Your task to perform on an android device: turn on showing notifications on the lock screen Image 0: 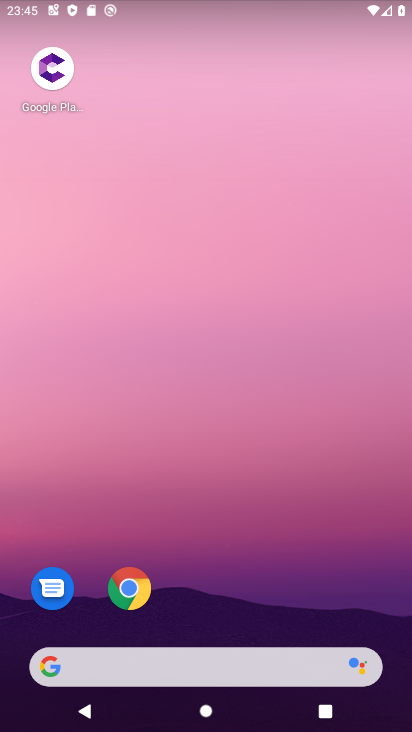
Step 0: drag from (180, 507) to (69, 17)
Your task to perform on an android device: turn on showing notifications on the lock screen Image 1: 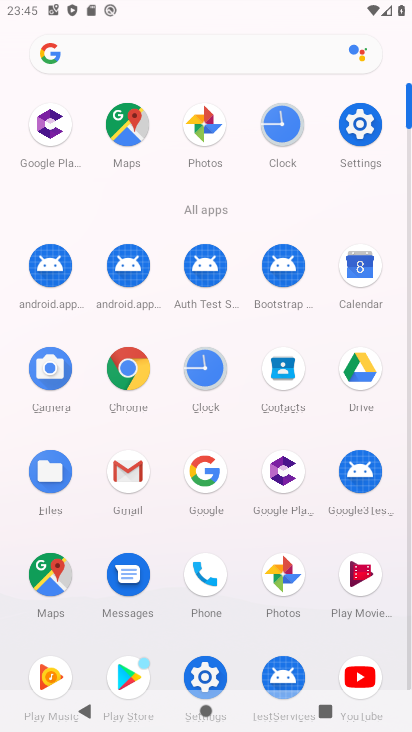
Step 1: click (360, 120)
Your task to perform on an android device: turn on showing notifications on the lock screen Image 2: 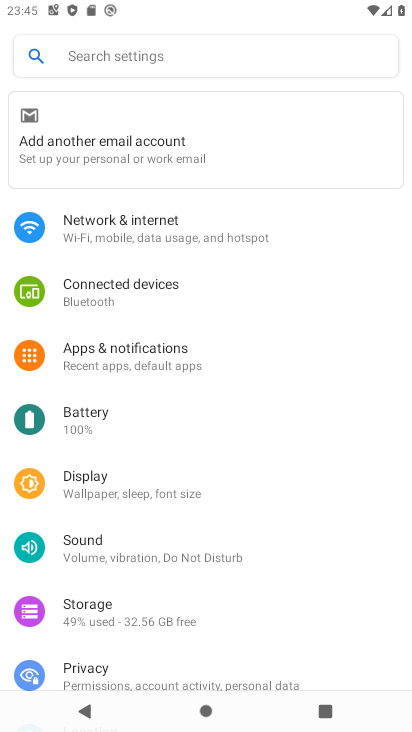
Step 2: click (141, 350)
Your task to perform on an android device: turn on showing notifications on the lock screen Image 3: 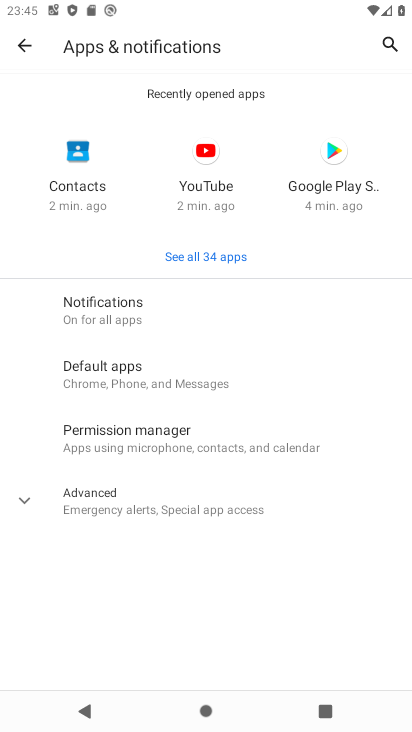
Step 3: click (84, 300)
Your task to perform on an android device: turn on showing notifications on the lock screen Image 4: 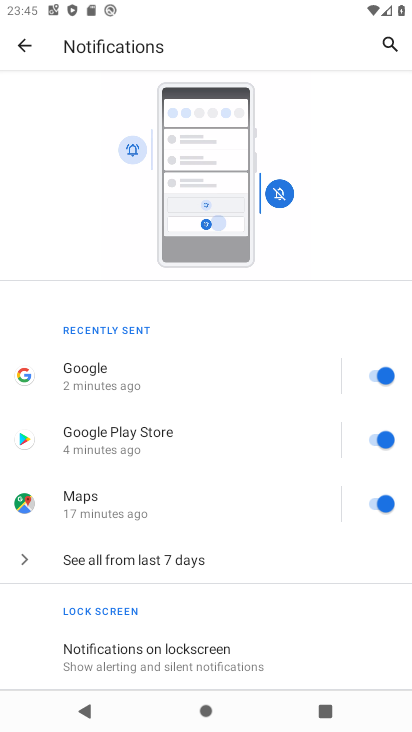
Step 4: click (120, 646)
Your task to perform on an android device: turn on showing notifications on the lock screen Image 5: 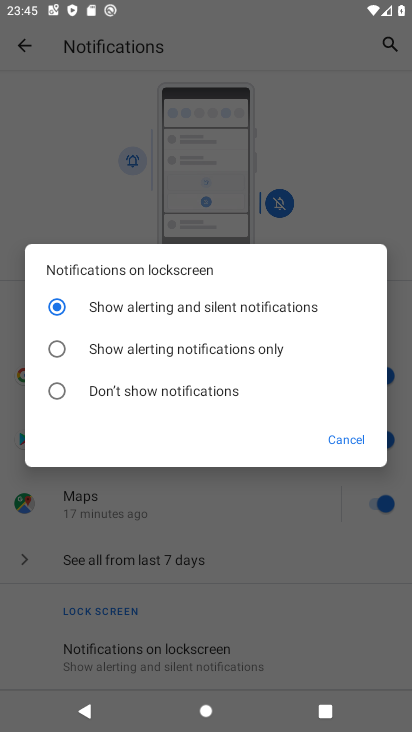
Step 5: task complete